Your task to perform on an android device: toggle javascript in the chrome app Image 0: 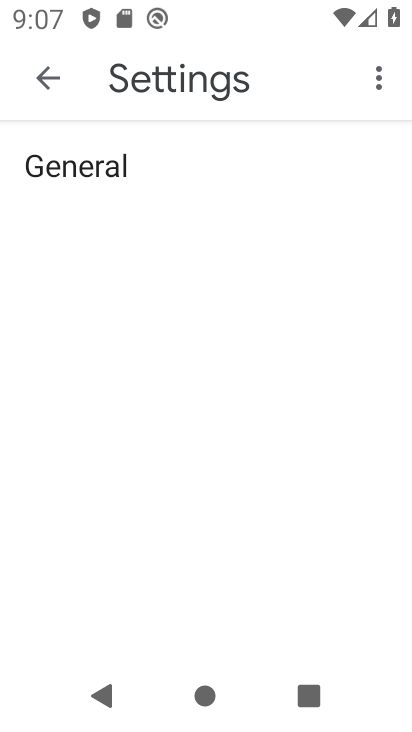
Step 0: press home button
Your task to perform on an android device: toggle javascript in the chrome app Image 1: 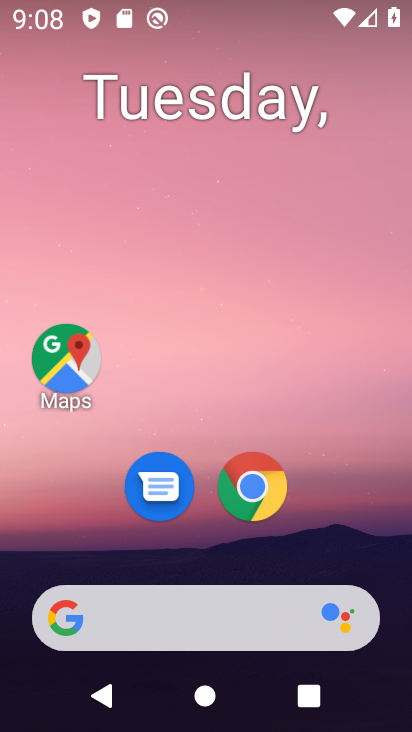
Step 1: drag from (381, 547) to (383, 113)
Your task to perform on an android device: toggle javascript in the chrome app Image 2: 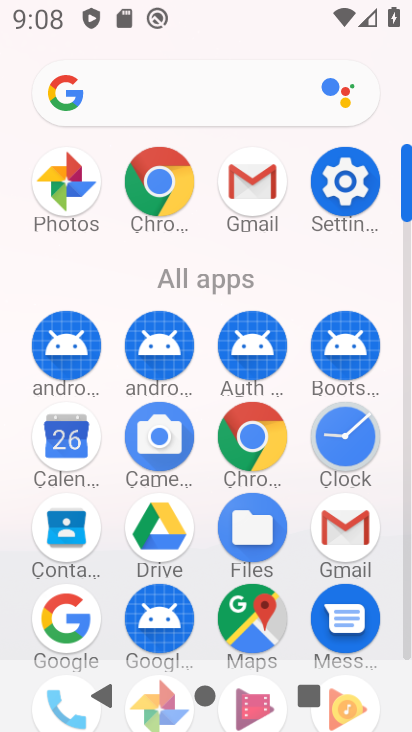
Step 2: click (257, 440)
Your task to perform on an android device: toggle javascript in the chrome app Image 3: 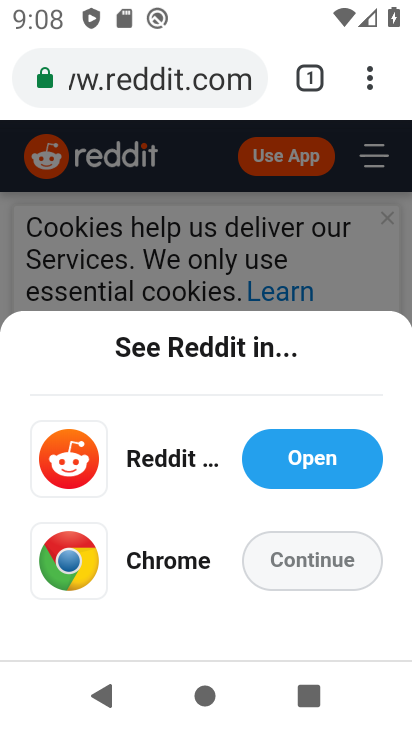
Step 3: click (371, 82)
Your task to perform on an android device: toggle javascript in the chrome app Image 4: 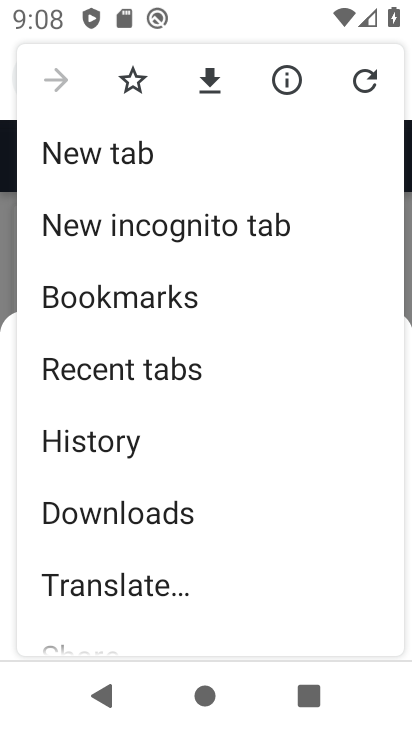
Step 4: drag from (370, 500) to (371, 462)
Your task to perform on an android device: toggle javascript in the chrome app Image 5: 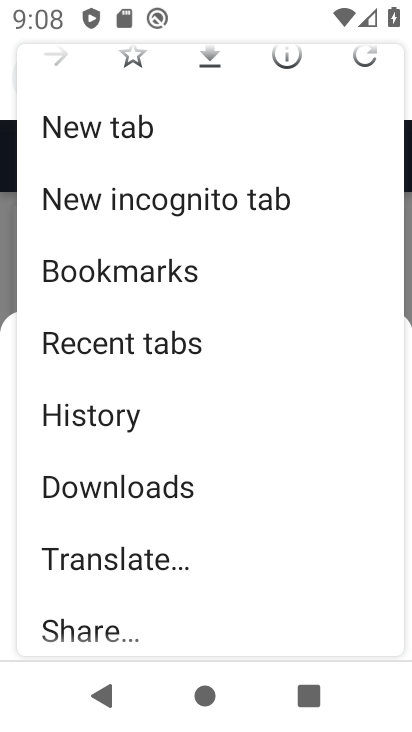
Step 5: drag from (346, 542) to (351, 486)
Your task to perform on an android device: toggle javascript in the chrome app Image 6: 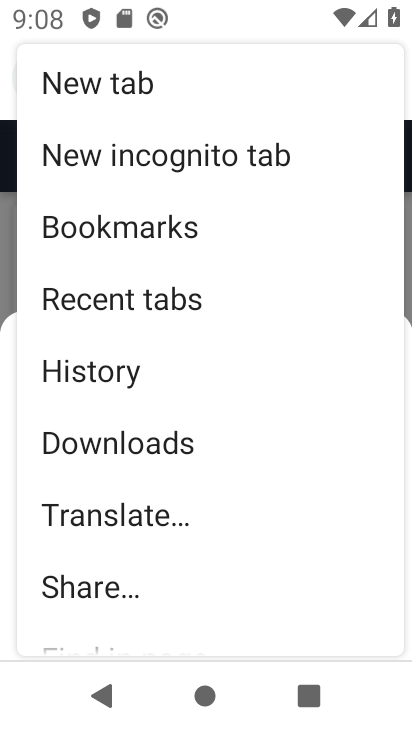
Step 6: drag from (343, 559) to (343, 487)
Your task to perform on an android device: toggle javascript in the chrome app Image 7: 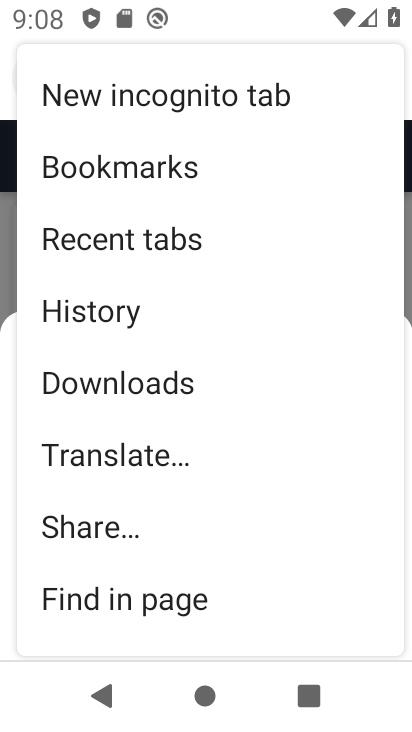
Step 7: drag from (329, 565) to (335, 488)
Your task to perform on an android device: toggle javascript in the chrome app Image 8: 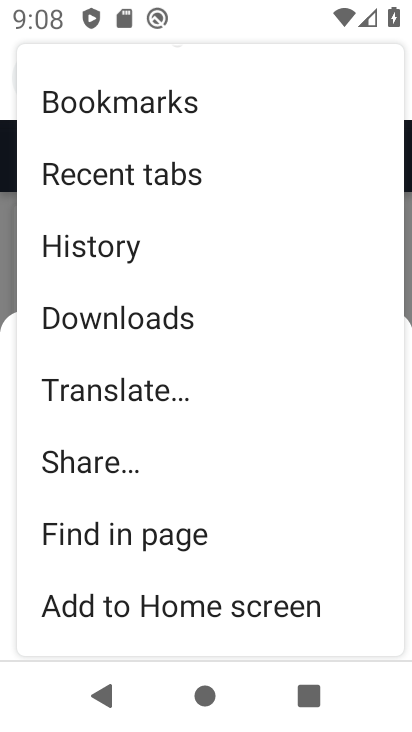
Step 8: drag from (339, 589) to (342, 503)
Your task to perform on an android device: toggle javascript in the chrome app Image 9: 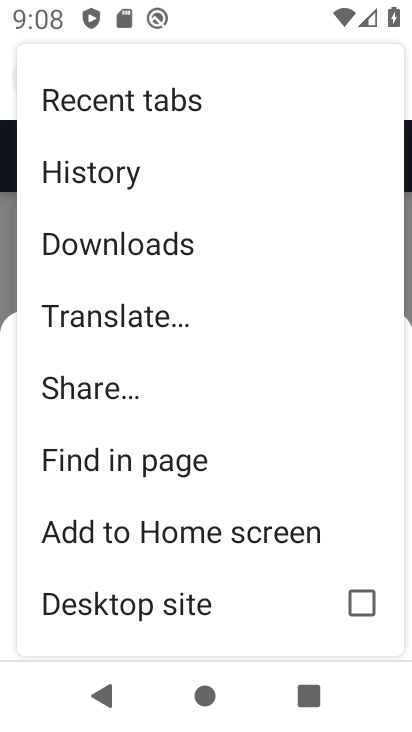
Step 9: drag from (306, 596) to (307, 486)
Your task to perform on an android device: toggle javascript in the chrome app Image 10: 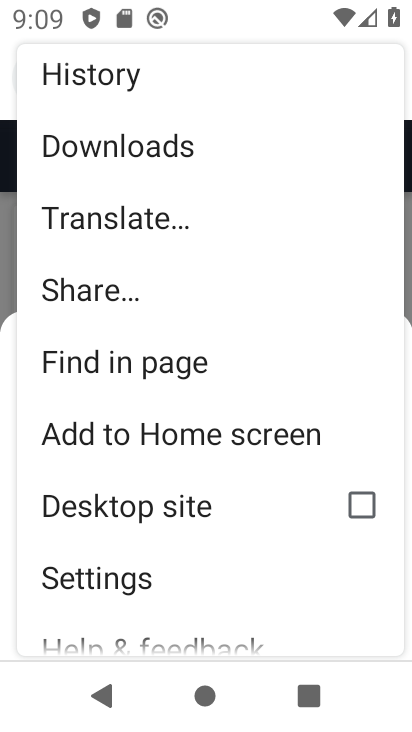
Step 10: click (266, 592)
Your task to perform on an android device: toggle javascript in the chrome app Image 11: 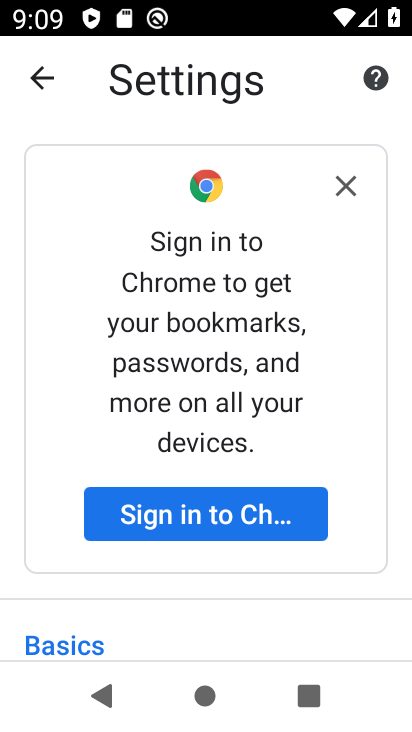
Step 11: drag from (266, 592) to (282, 492)
Your task to perform on an android device: toggle javascript in the chrome app Image 12: 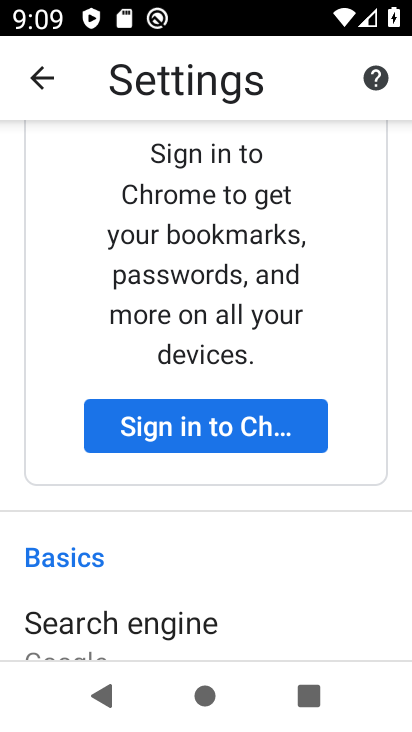
Step 12: drag from (283, 597) to (297, 471)
Your task to perform on an android device: toggle javascript in the chrome app Image 13: 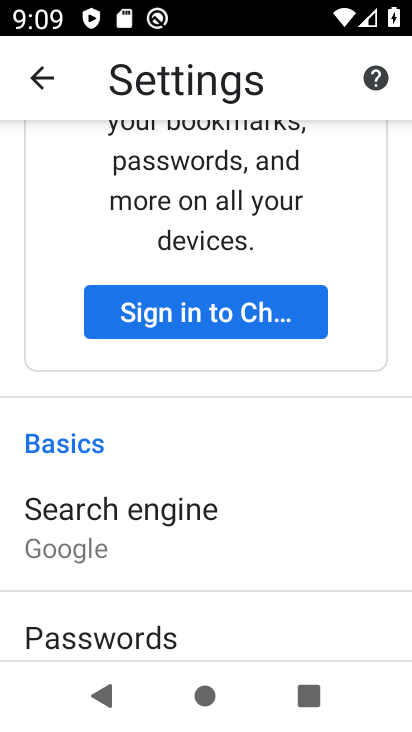
Step 13: drag from (282, 565) to (277, 441)
Your task to perform on an android device: toggle javascript in the chrome app Image 14: 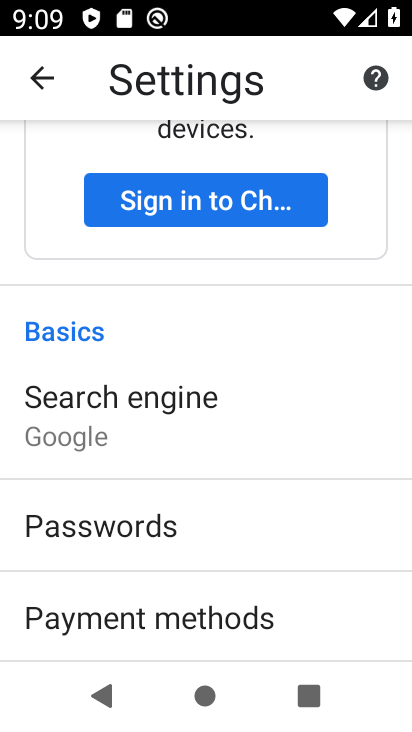
Step 14: drag from (320, 584) to (327, 436)
Your task to perform on an android device: toggle javascript in the chrome app Image 15: 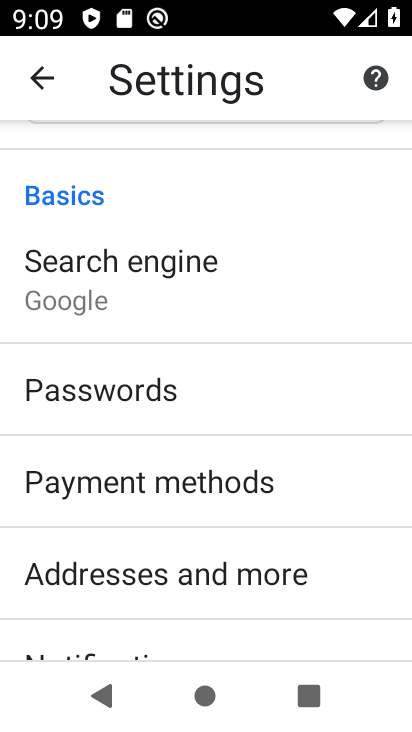
Step 15: drag from (325, 612) to (335, 477)
Your task to perform on an android device: toggle javascript in the chrome app Image 16: 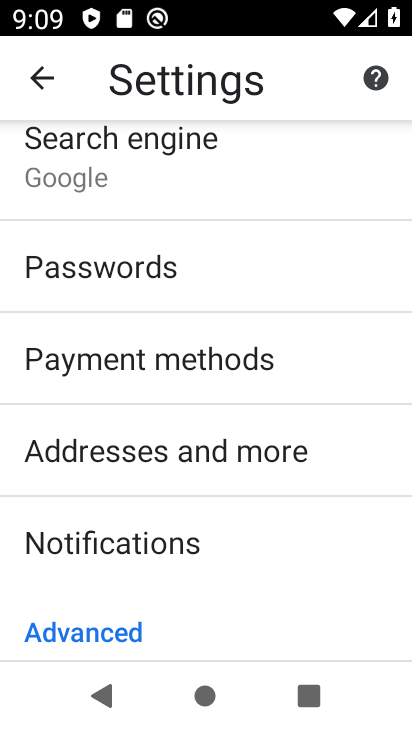
Step 16: drag from (311, 602) to (315, 463)
Your task to perform on an android device: toggle javascript in the chrome app Image 17: 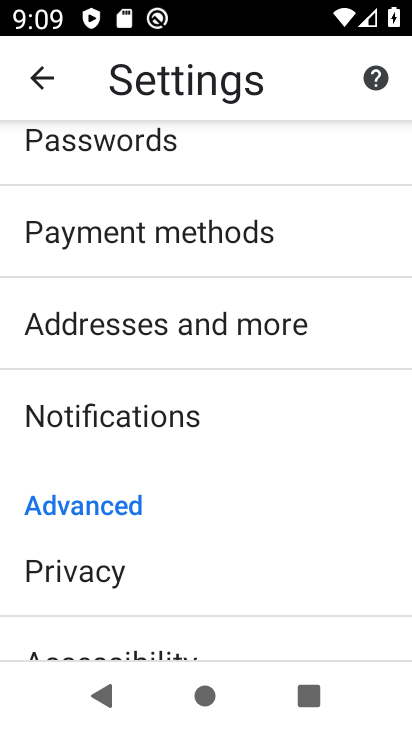
Step 17: drag from (311, 582) to (310, 449)
Your task to perform on an android device: toggle javascript in the chrome app Image 18: 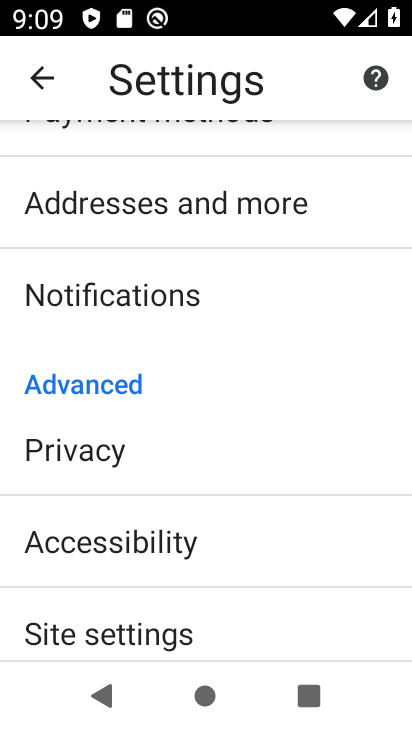
Step 18: drag from (305, 599) to (306, 430)
Your task to perform on an android device: toggle javascript in the chrome app Image 19: 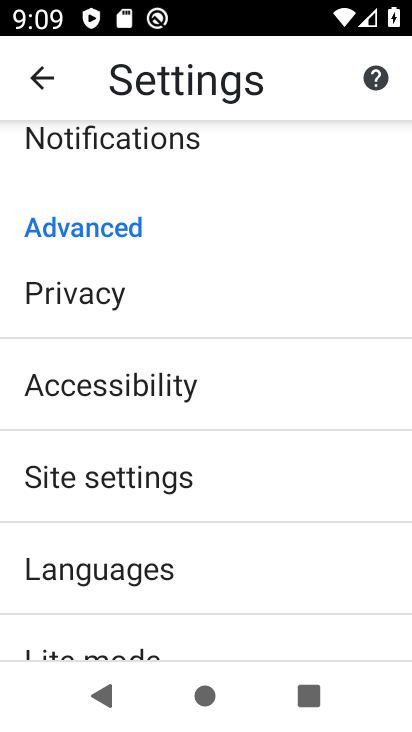
Step 19: click (306, 476)
Your task to perform on an android device: toggle javascript in the chrome app Image 20: 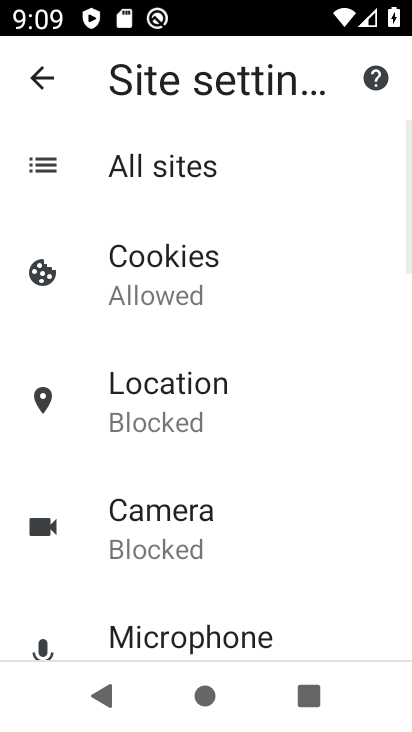
Step 20: drag from (306, 476) to (323, 398)
Your task to perform on an android device: toggle javascript in the chrome app Image 21: 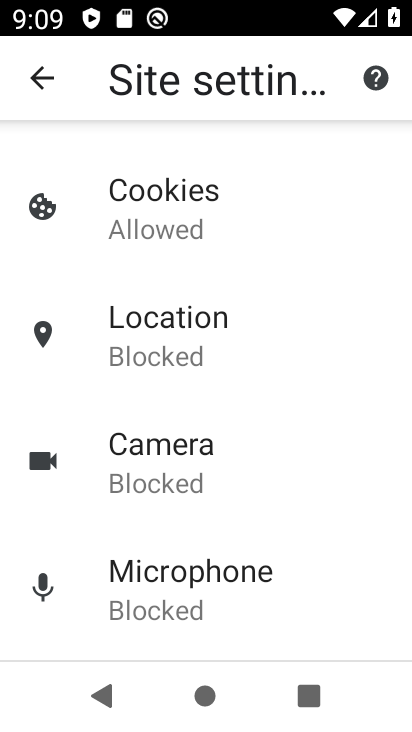
Step 21: drag from (325, 494) to (333, 396)
Your task to perform on an android device: toggle javascript in the chrome app Image 22: 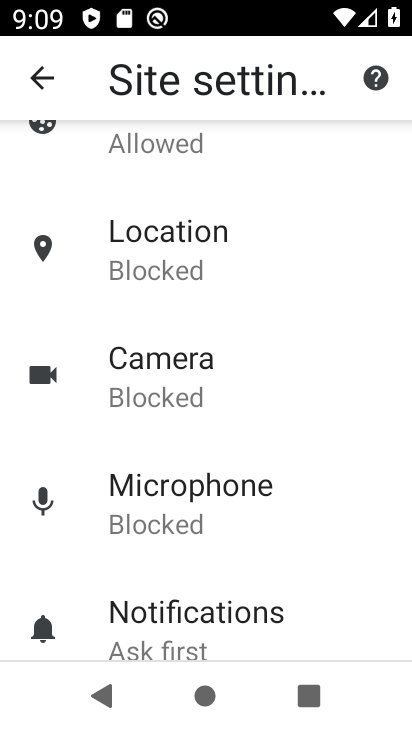
Step 22: drag from (333, 503) to (339, 406)
Your task to perform on an android device: toggle javascript in the chrome app Image 23: 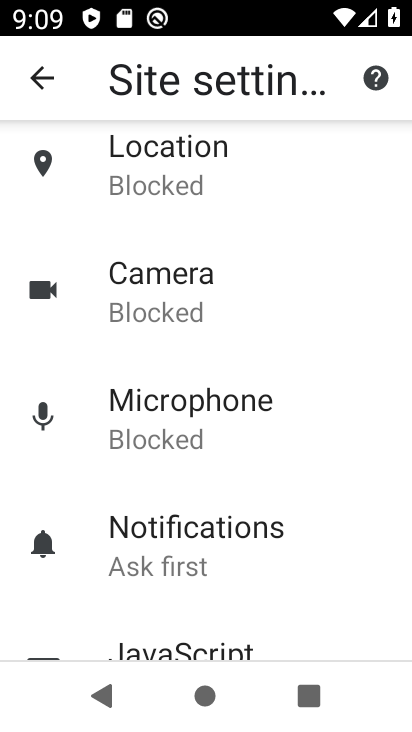
Step 23: drag from (341, 536) to (344, 420)
Your task to perform on an android device: toggle javascript in the chrome app Image 24: 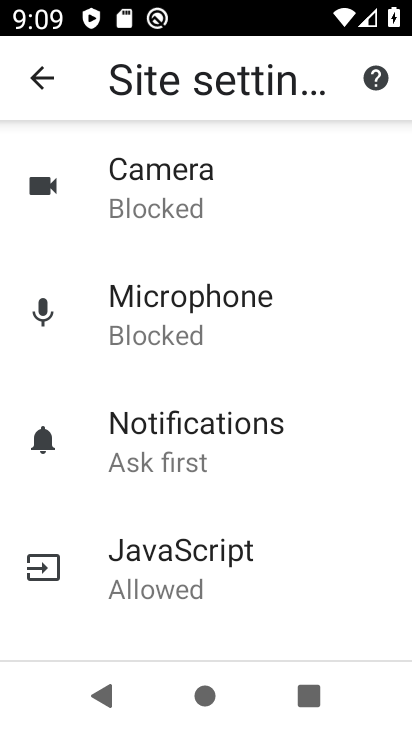
Step 24: drag from (348, 537) to (345, 436)
Your task to perform on an android device: toggle javascript in the chrome app Image 25: 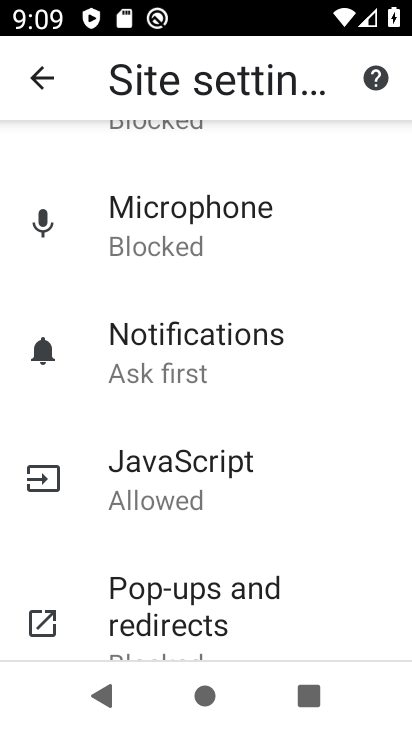
Step 25: drag from (338, 524) to (338, 426)
Your task to perform on an android device: toggle javascript in the chrome app Image 26: 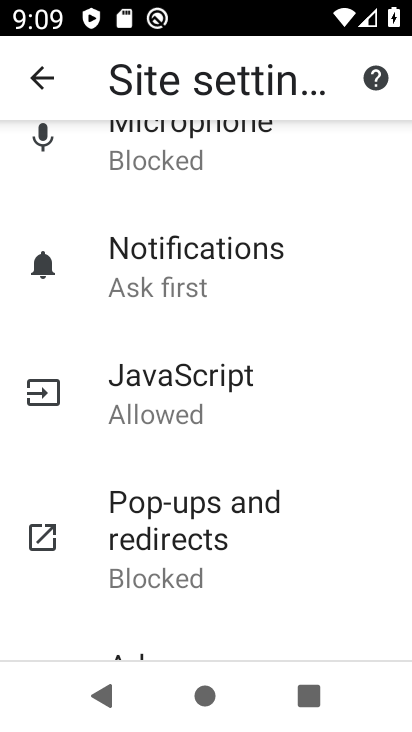
Step 26: click (307, 412)
Your task to perform on an android device: toggle javascript in the chrome app Image 27: 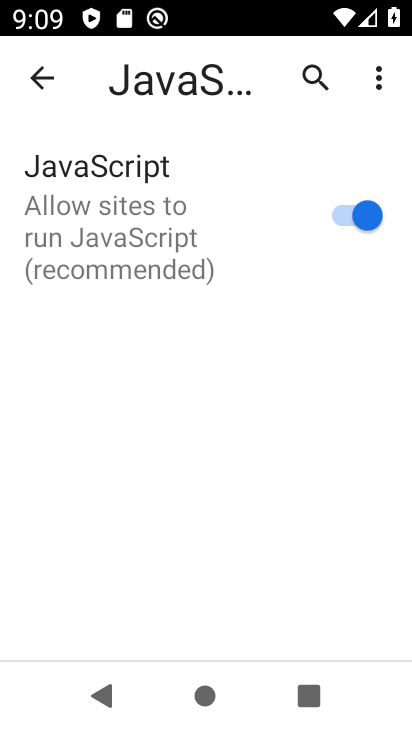
Step 27: click (352, 219)
Your task to perform on an android device: toggle javascript in the chrome app Image 28: 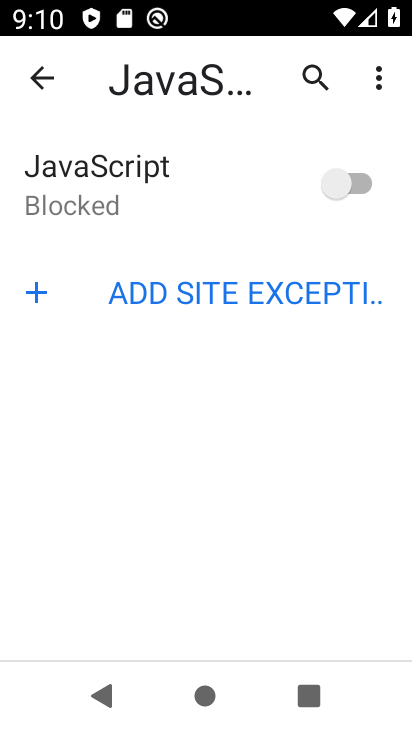
Step 28: click (340, 201)
Your task to perform on an android device: toggle javascript in the chrome app Image 29: 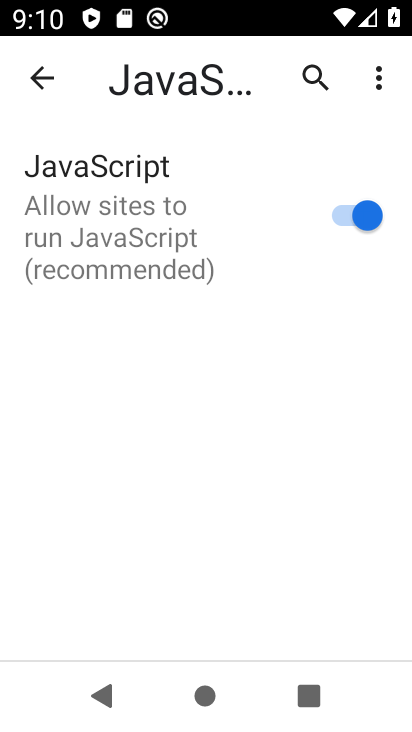
Step 29: task complete